Your task to perform on an android device: See recent photos Image 0: 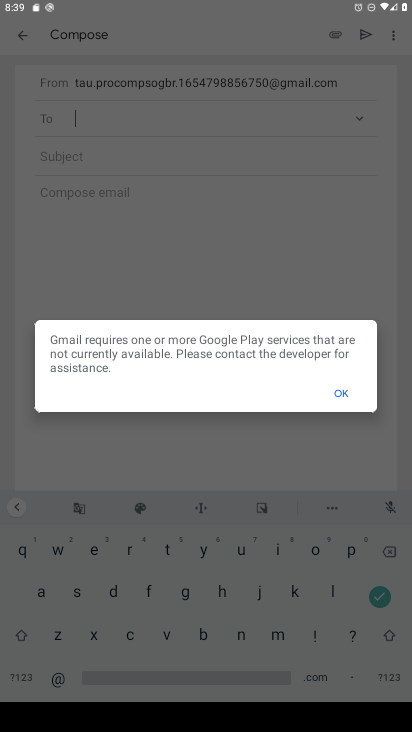
Step 0: press home button
Your task to perform on an android device: See recent photos Image 1: 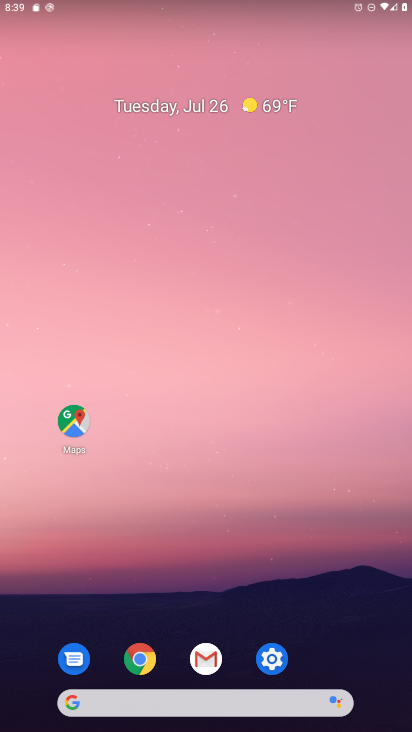
Step 1: drag from (278, 727) to (300, 187)
Your task to perform on an android device: See recent photos Image 2: 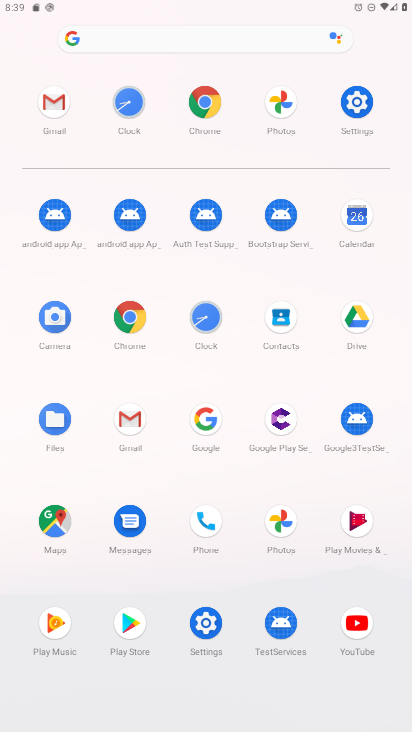
Step 2: click (283, 520)
Your task to perform on an android device: See recent photos Image 3: 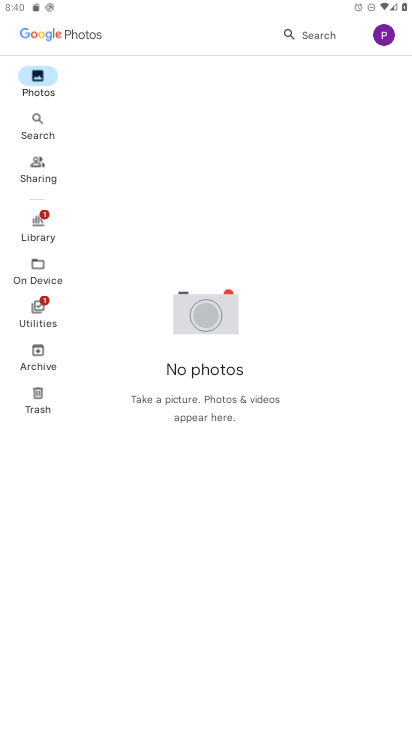
Step 3: task complete